Your task to perform on an android device: Is it going to rain this weekend? Image 0: 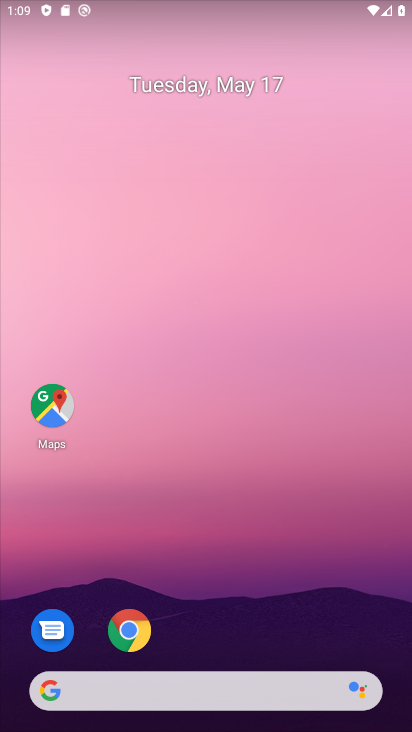
Step 0: click (172, 689)
Your task to perform on an android device: Is it going to rain this weekend? Image 1: 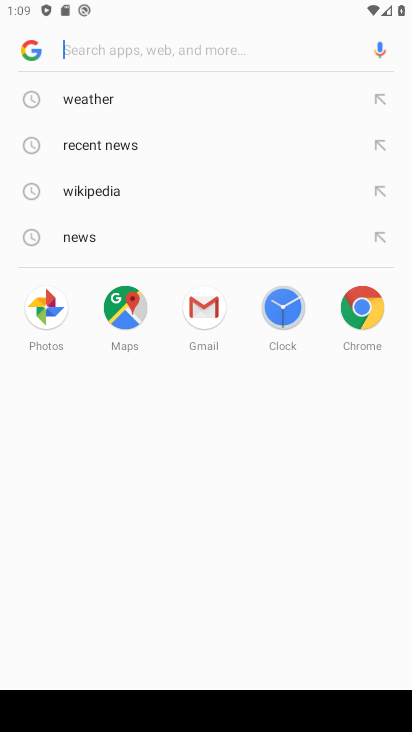
Step 1: click (94, 102)
Your task to perform on an android device: Is it going to rain this weekend? Image 2: 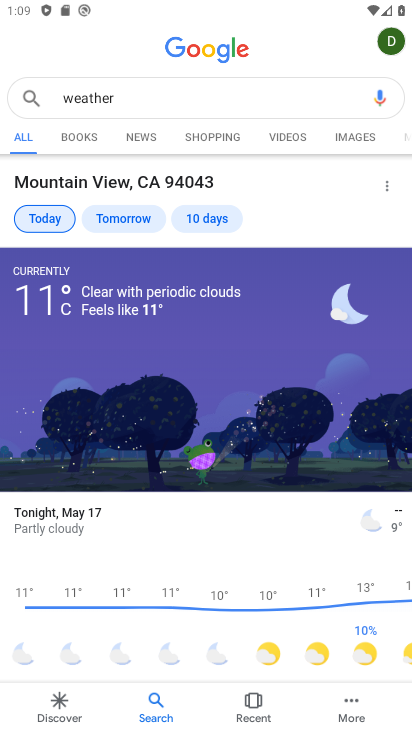
Step 2: click (202, 217)
Your task to perform on an android device: Is it going to rain this weekend? Image 3: 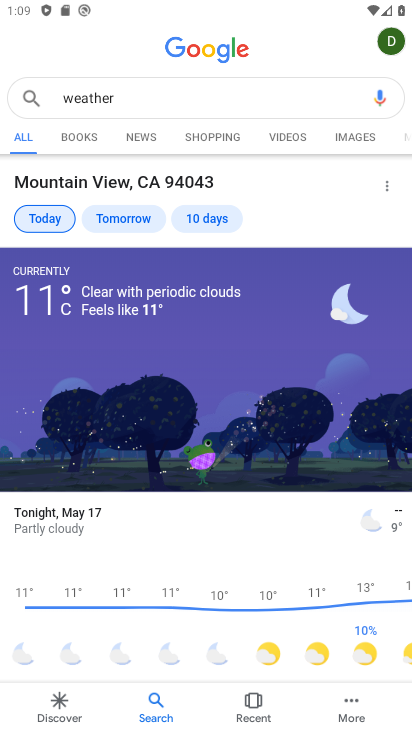
Step 3: click (210, 218)
Your task to perform on an android device: Is it going to rain this weekend? Image 4: 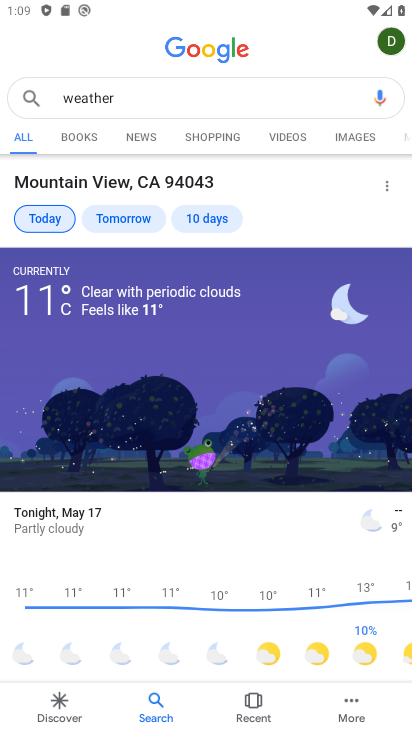
Step 4: click (205, 215)
Your task to perform on an android device: Is it going to rain this weekend? Image 5: 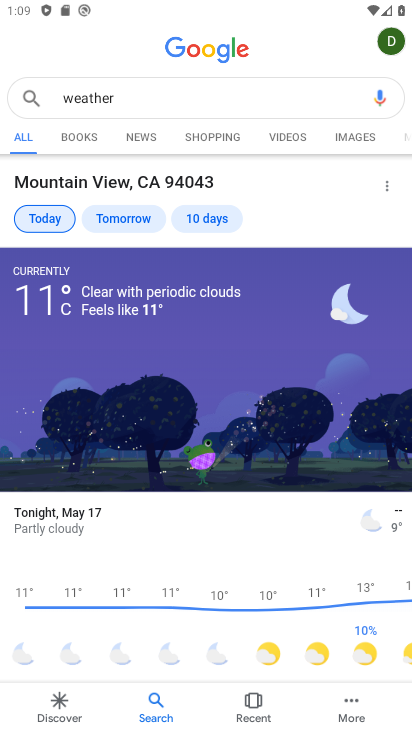
Step 5: click (205, 215)
Your task to perform on an android device: Is it going to rain this weekend? Image 6: 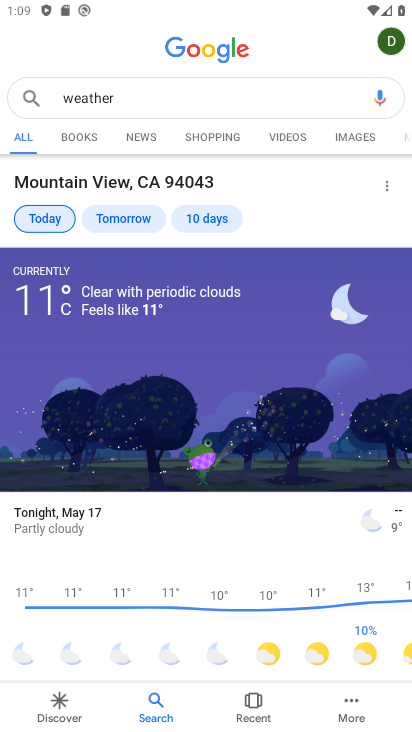
Step 6: task complete